Your task to perform on an android device: toggle notifications settings in the gmail app Image 0: 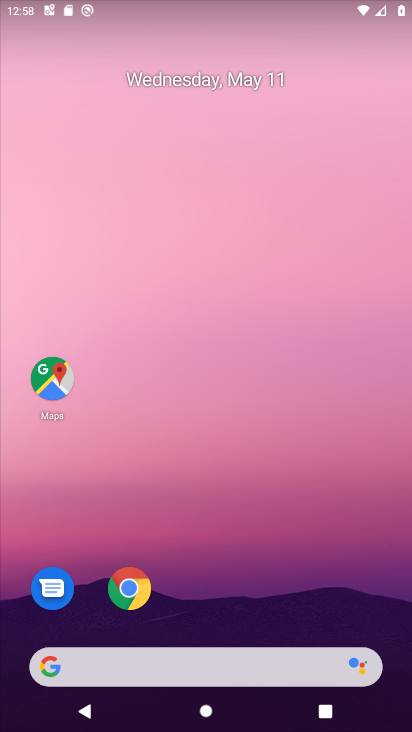
Step 0: drag from (188, 630) to (261, 60)
Your task to perform on an android device: toggle notifications settings in the gmail app Image 1: 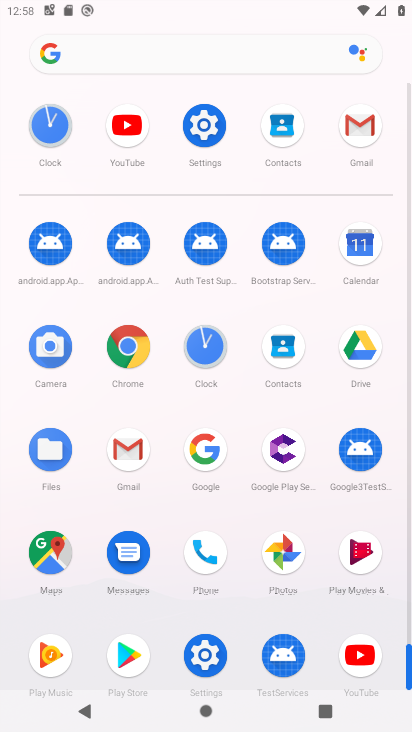
Step 1: click (213, 124)
Your task to perform on an android device: toggle notifications settings in the gmail app Image 2: 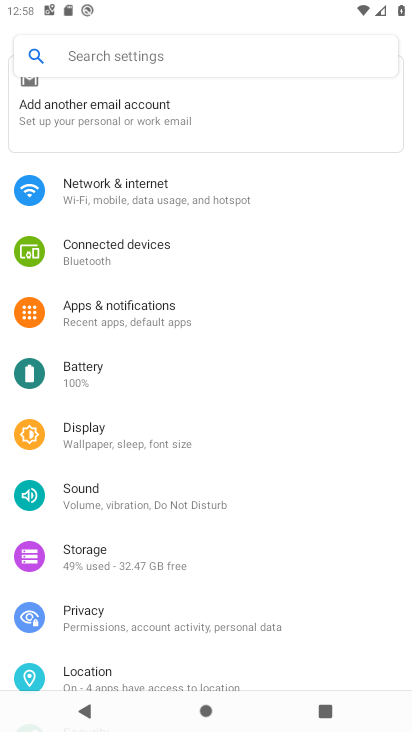
Step 2: click (136, 317)
Your task to perform on an android device: toggle notifications settings in the gmail app Image 3: 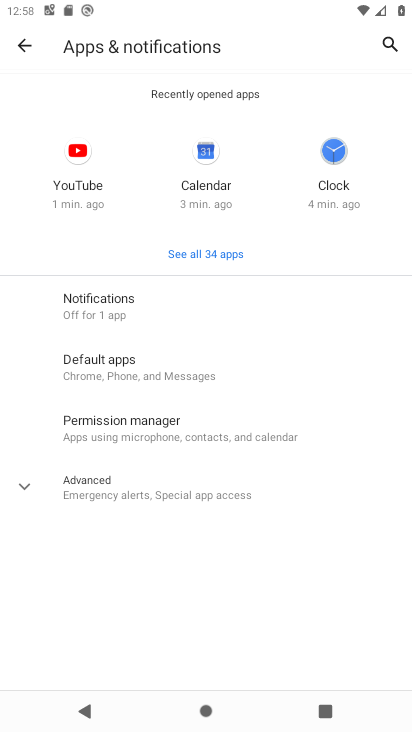
Step 3: press home button
Your task to perform on an android device: toggle notifications settings in the gmail app Image 4: 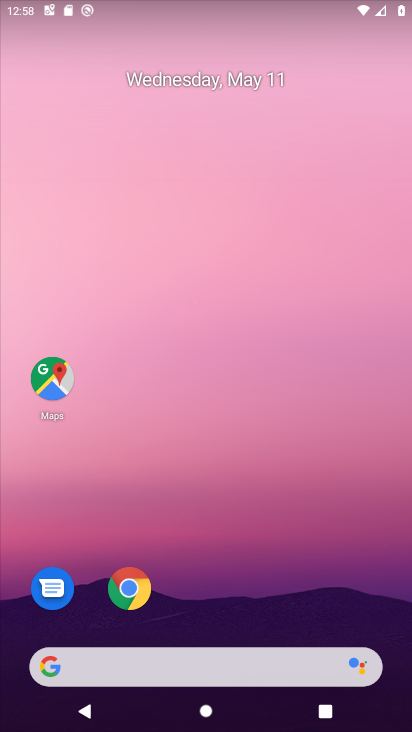
Step 4: drag from (111, 644) to (167, 309)
Your task to perform on an android device: toggle notifications settings in the gmail app Image 5: 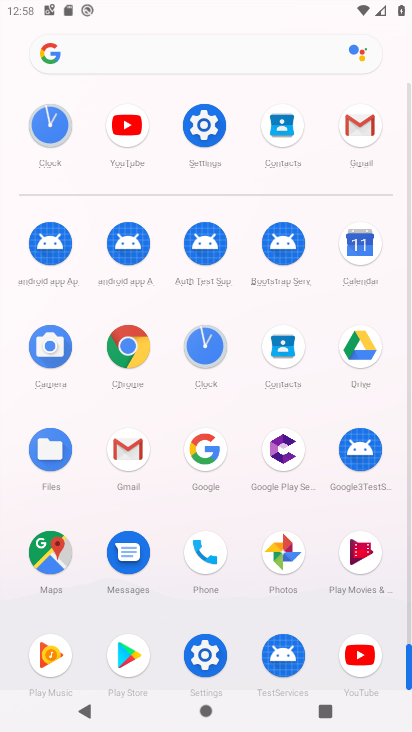
Step 5: click (373, 122)
Your task to perform on an android device: toggle notifications settings in the gmail app Image 6: 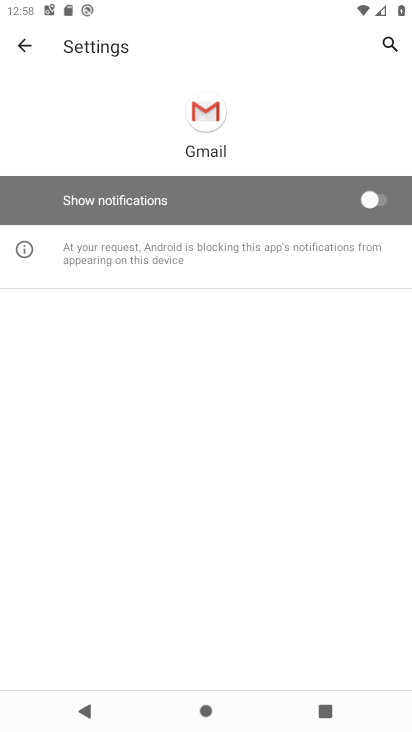
Step 6: click (373, 200)
Your task to perform on an android device: toggle notifications settings in the gmail app Image 7: 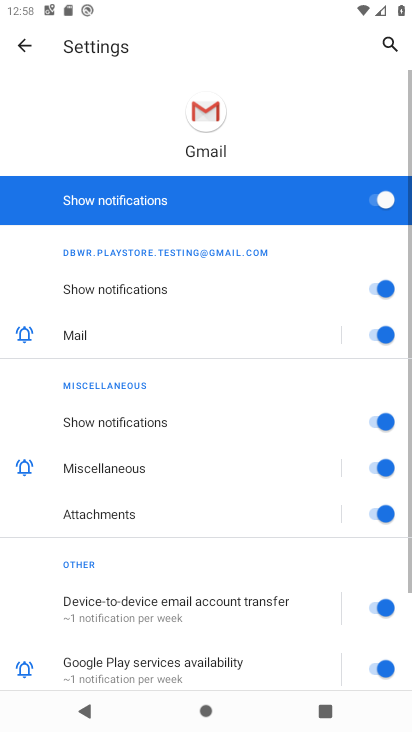
Step 7: task complete